Your task to perform on an android device: turn off data saver in the chrome app Image 0: 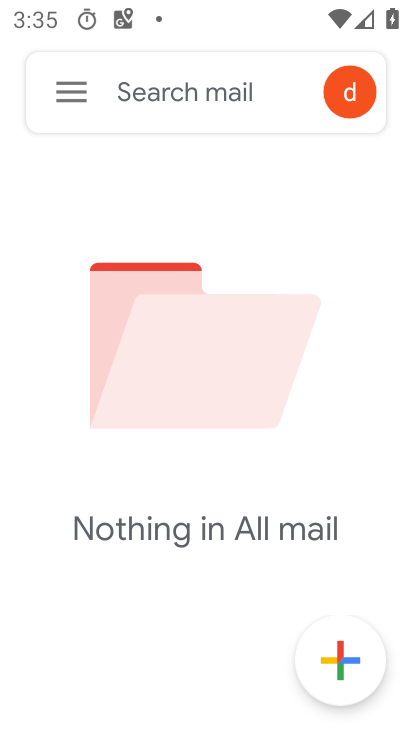
Step 0: press home button
Your task to perform on an android device: turn off data saver in the chrome app Image 1: 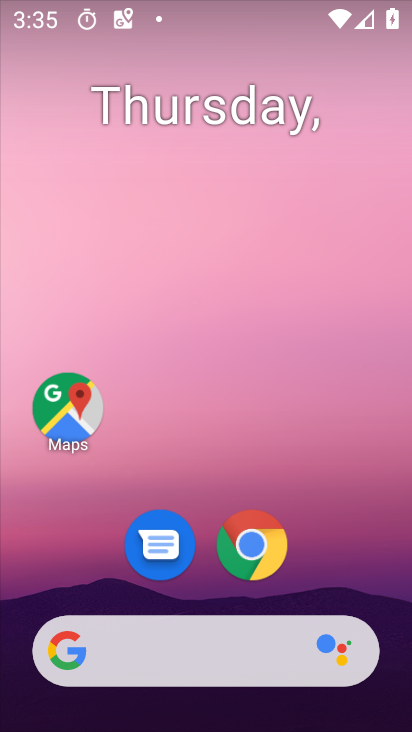
Step 1: click (262, 547)
Your task to perform on an android device: turn off data saver in the chrome app Image 2: 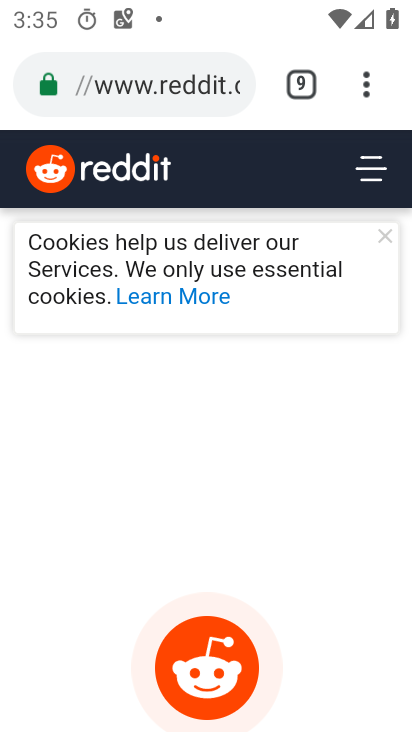
Step 2: click (369, 92)
Your task to perform on an android device: turn off data saver in the chrome app Image 3: 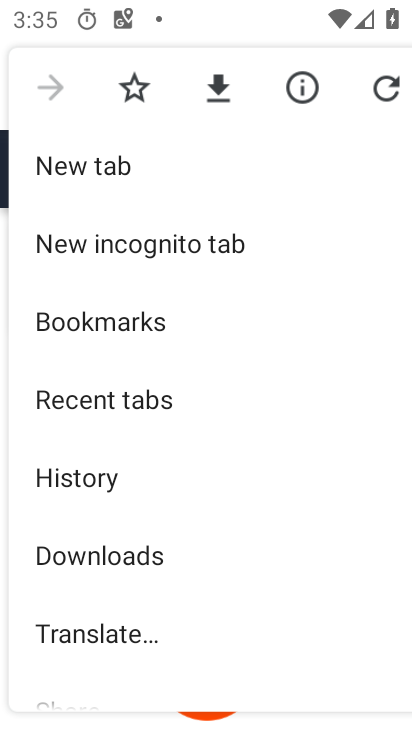
Step 3: drag from (160, 658) to (162, 292)
Your task to perform on an android device: turn off data saver in the chrome app Image 4: 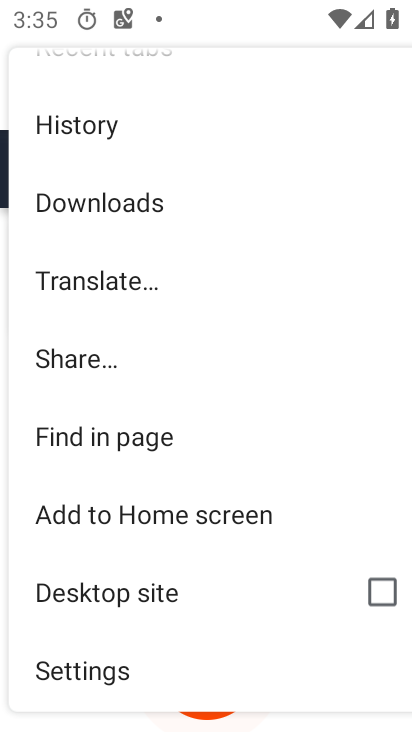
Step 4: click (80, 671)
Your task to perform on an android device: turn off data saver in the chrome app Image 5: 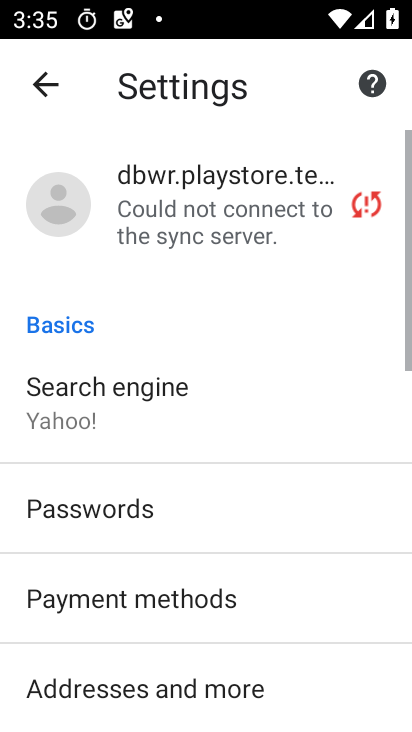
Step 5: drag from (103, 641) to (108, 248)
Your task to perform on an android device: turn off data saver in the chrome app Image 6: 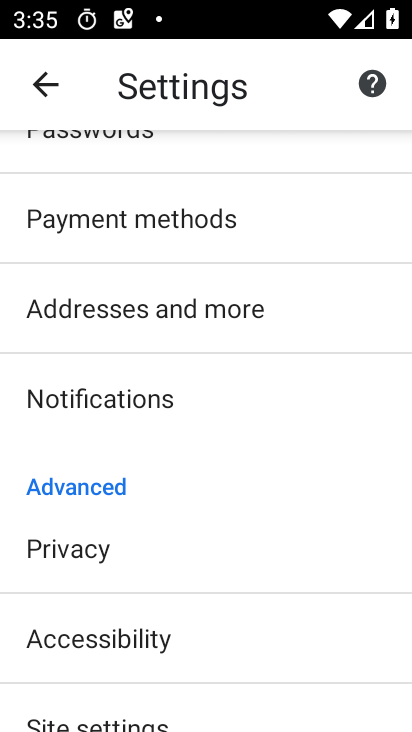
Step 6: drag from (136, 687) to (144, 283)
Your task to perform on an android device: turn off data saver in the chrome app Image 7: 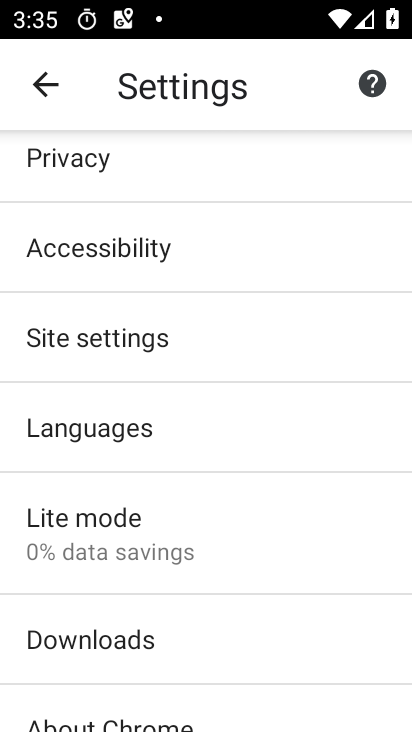
Step 7: click (89, 540)
Your task to perform on an android device: turn off data saver in the chrome app Image 8: 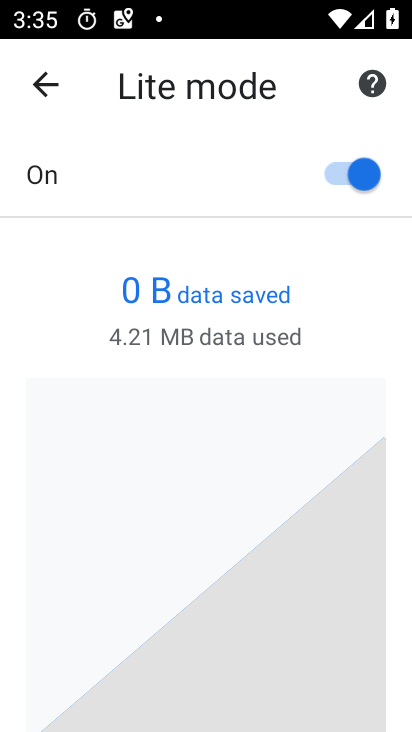
Step 8: click (335, 170)
Your task to perform on an android device: turn off data saver in the chrome app Image 9: 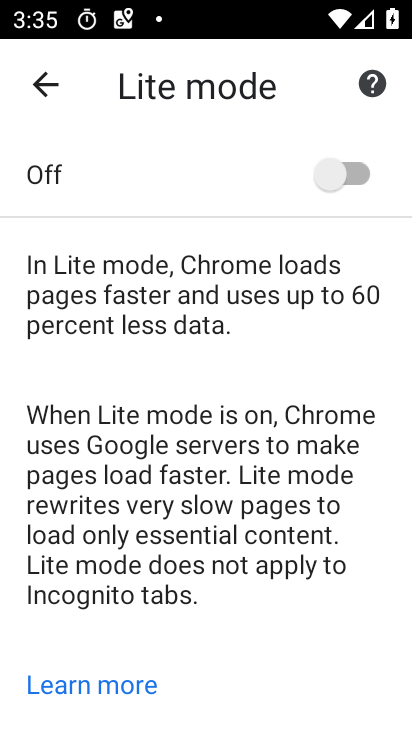
Step 9: task complete